Your task to perform on an android device: Open Chrome and go to settings Image 0: 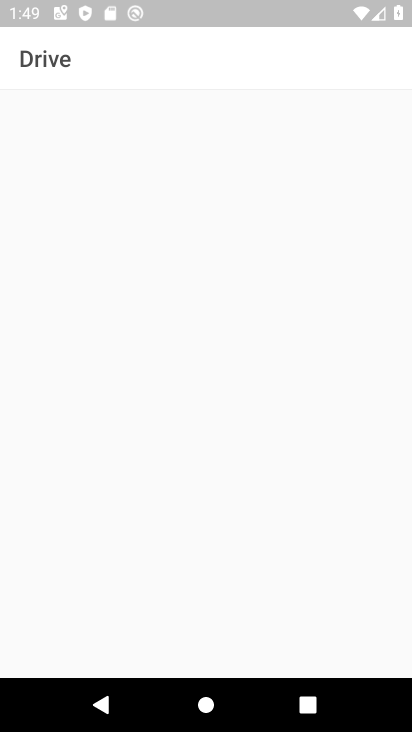
Step 0: press home button
Your task to perform on an android device: Open Chrome and go to settings Image 1: 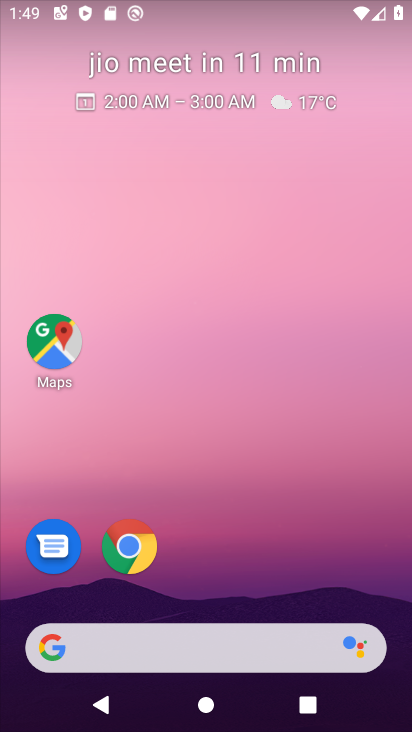
Step 1: click (137, 543)
Your task to perform on an android device: Open Chrome and go to settings Image 2: 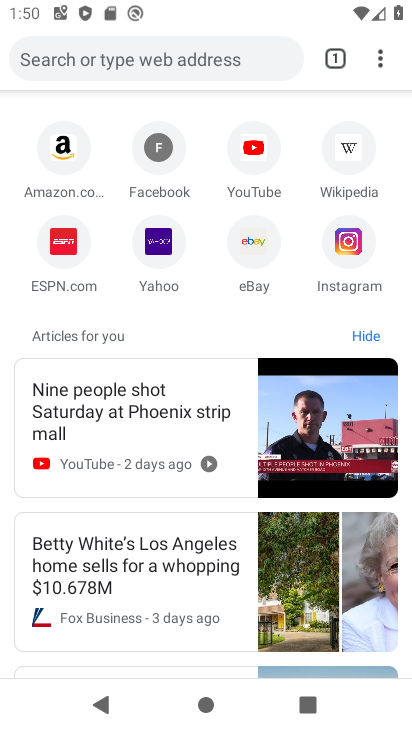
Step 2: click (382, 71)
Your task to perform on an android device: Open Chrome and go to settings Image 3: 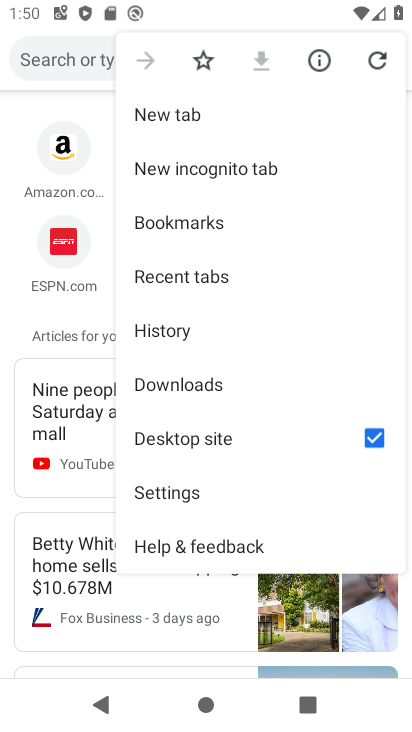
Step 3: click (209, 481)
Your task to perform on an android device: Open Chrome and go to settings Image 4: 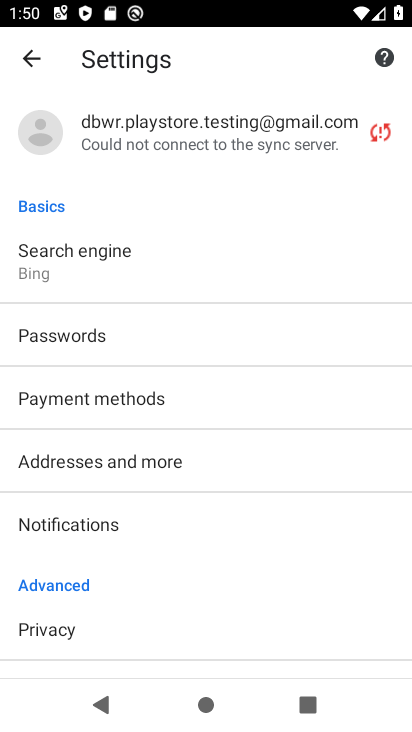
Step 4: task complete